Your task to perform on an android device: Go to Amazon Image 0: 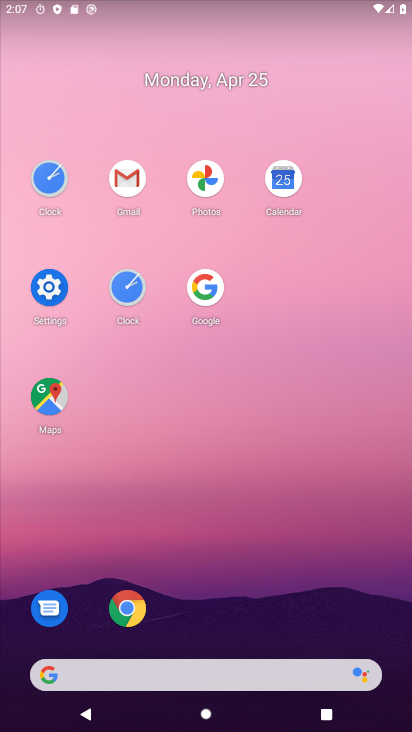
Step 0: click (133, 612)
Your task to perform on an android device: Go to Amazon Image 1: 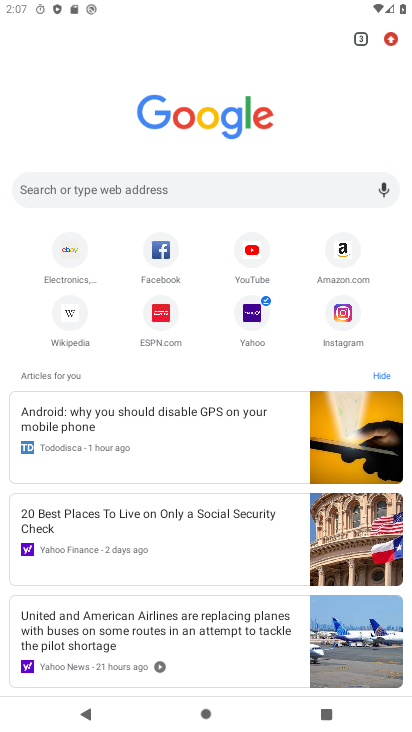
Step 1: click (337, 246)
Your task to perform on an android device: Go to Amazon Image 2: 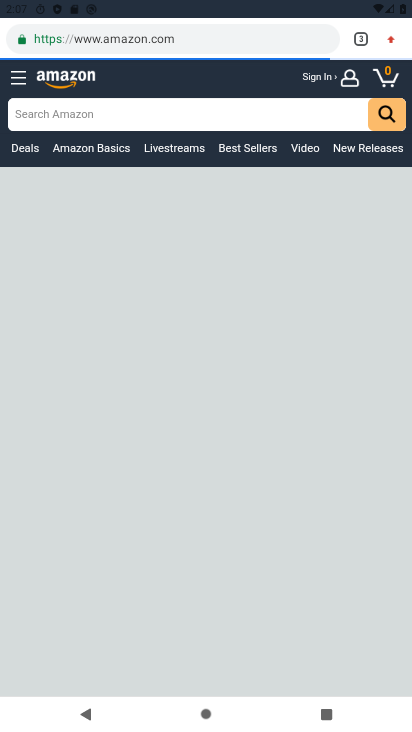
Step 2: task complete